Your task to perform on an android device: turn on location history Image 0: 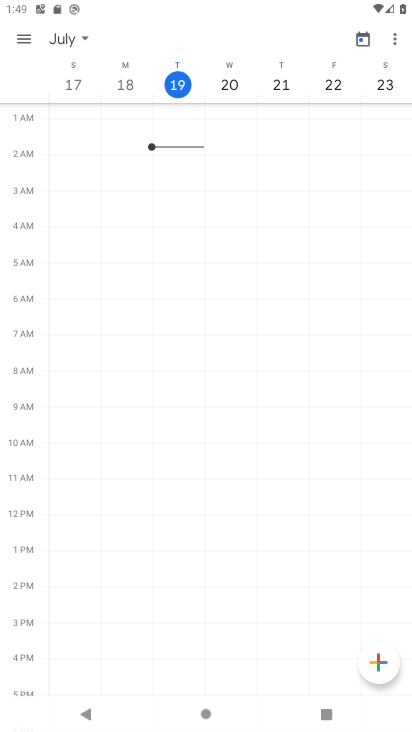
Step 0: press home button
Your task to perform on an android device: turn on location history Image 1: 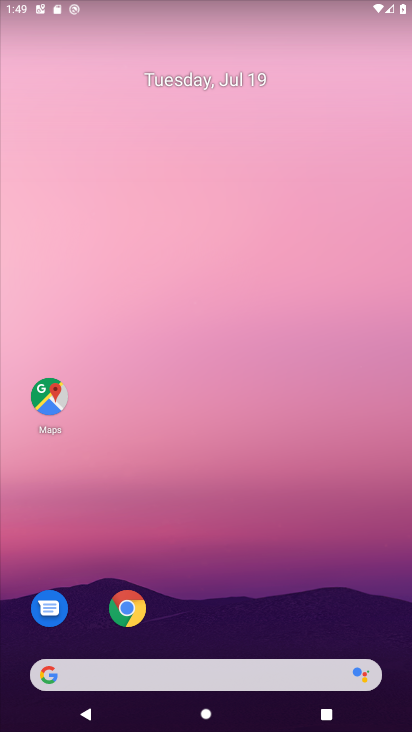
Step 1: drag from (251, 630) to (267, 265)
Your task to perform on an android device: turn on location history Image 2: 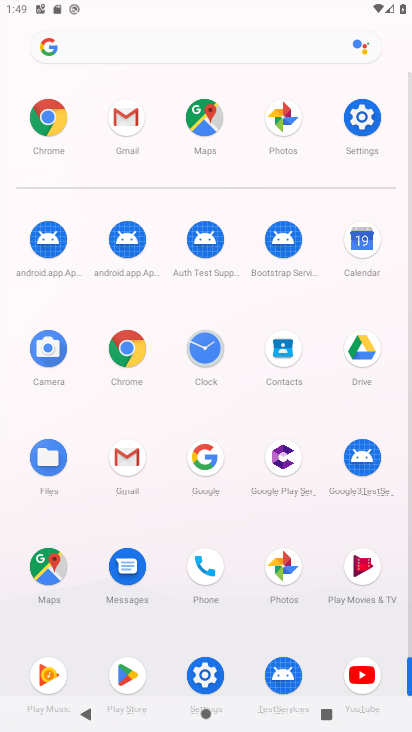
Step 2: click (210, 672)
Your task to perform on an android device: turn on location history Image 3: 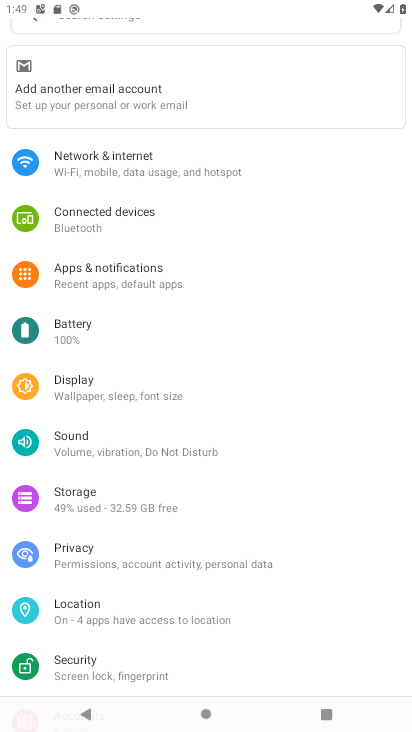
Step 3: click (115, 613)
Your task to perform on an android device: turn on location history Image 4: 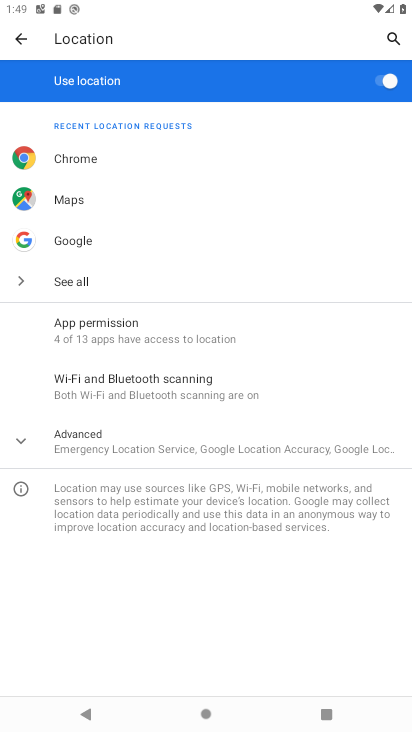
Step 4: click (126, 450)
Your task to perform on an android device: turn on location history Image 5: 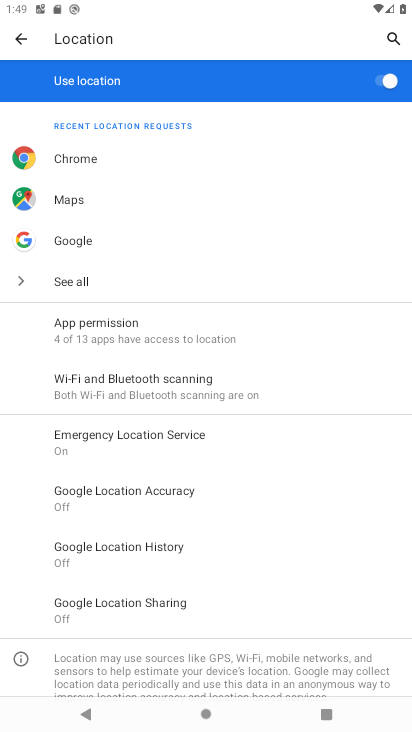
Step 5: click (160, 544)
Your task to perform on an android device: turn on location history Image 6: 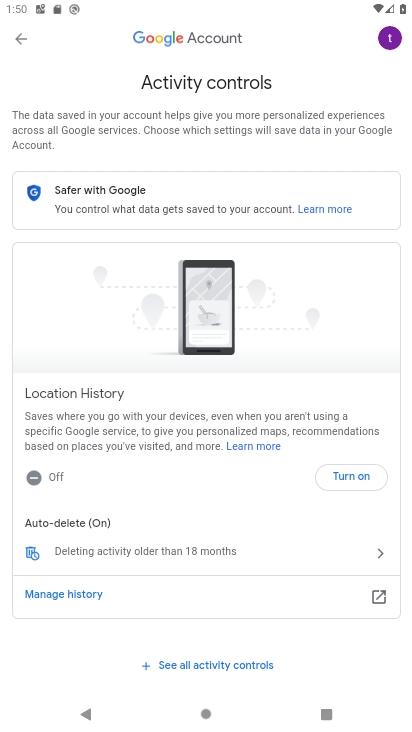
Step 6: click (354, 472)
Your task to perform on an android device: turn on location history Image 7: 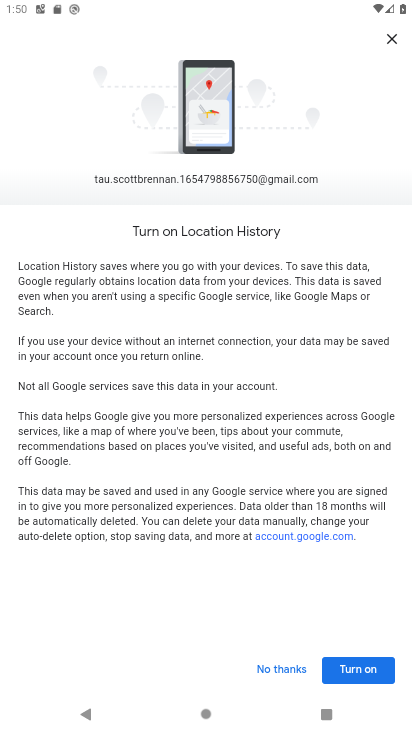
Step 7: click (353, 667)
Your task to perform on an android device: turn on location history Image 8: 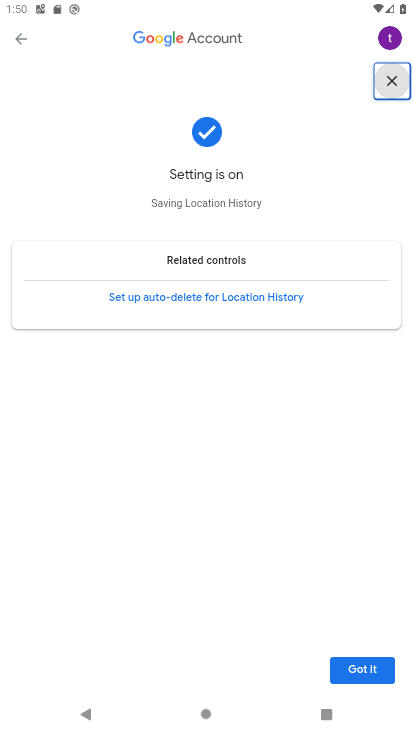
Step 8: click (354, 673)
Your task to perform on an android device: turn on location history Image 9: 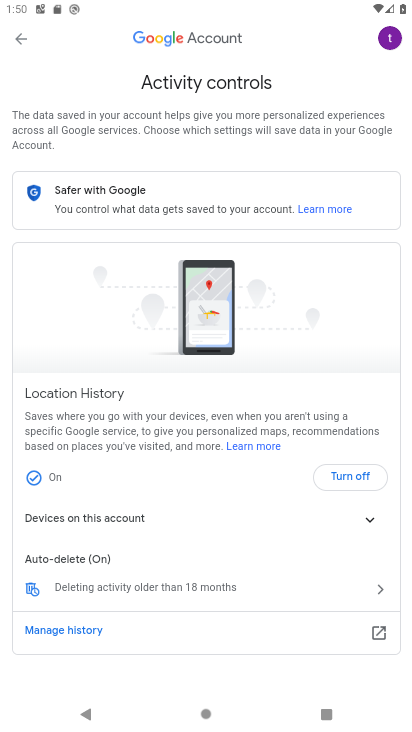
Step 9: task complete